Your task to perform on an android device: uninstall "ZOOM Cloud Meetings" Image 0: 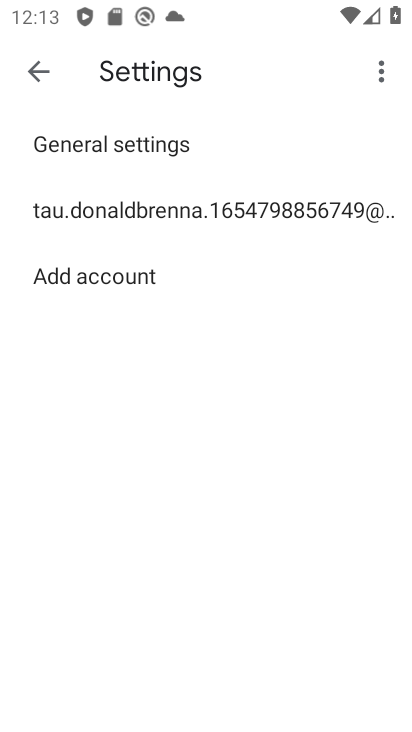
Step 0: press home button
Your task to perform on an android device: uninstall "ZOOM Cloud Meetings" Image 1: 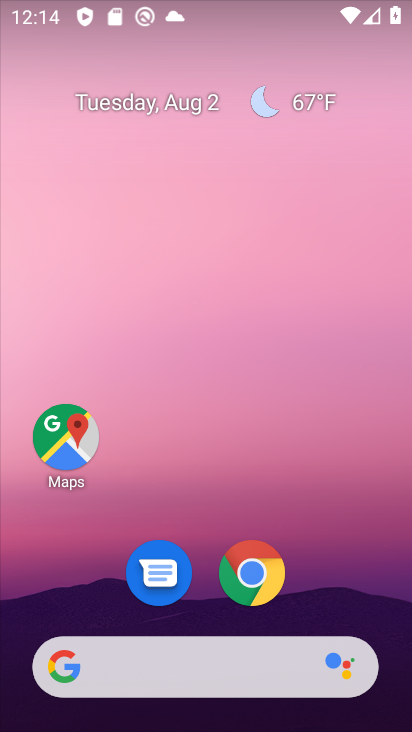
Step 1: drag from (241, 664) to (230, 9)
Your task to perform on an android device: uninstall "ZOOM Cloud Meetings" Image 2: 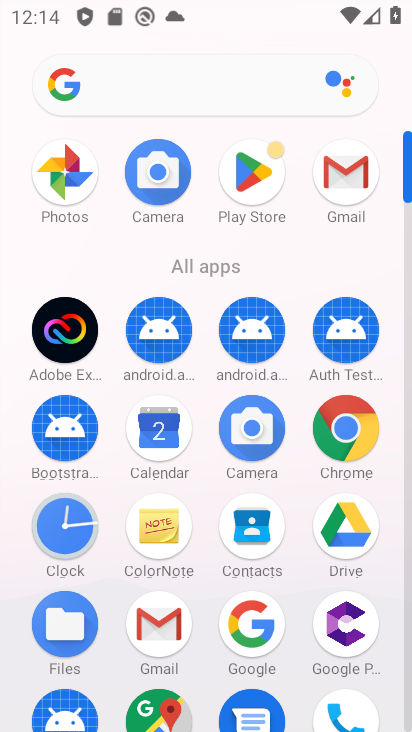
Step 2: click (246, 169)
Your task to perform on an android device: uninstall "ZOOM Cloud Meetings" Image 3: 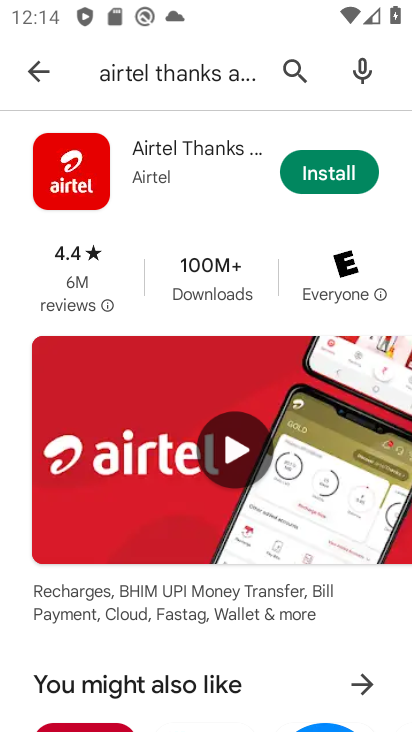
Step 3: click (293, 70)
Your task to perform on an android device: uninstall "ZOOM Cloud Meetings" Image 4: 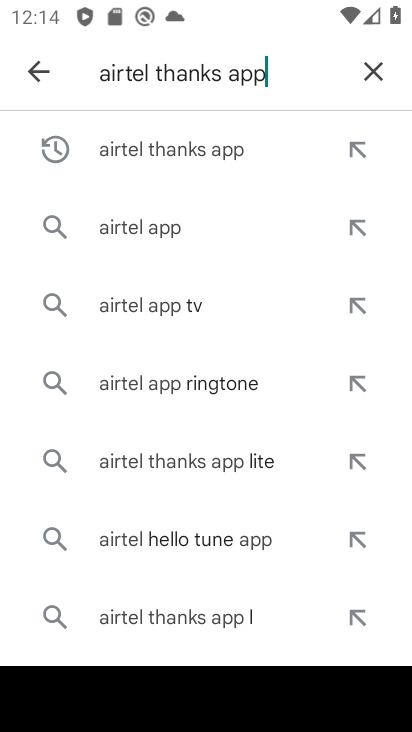
Step 4: click (376, 71)
Your task to perform on an android device: uninstall "ZOOM Cloud Meetings" Image 5: 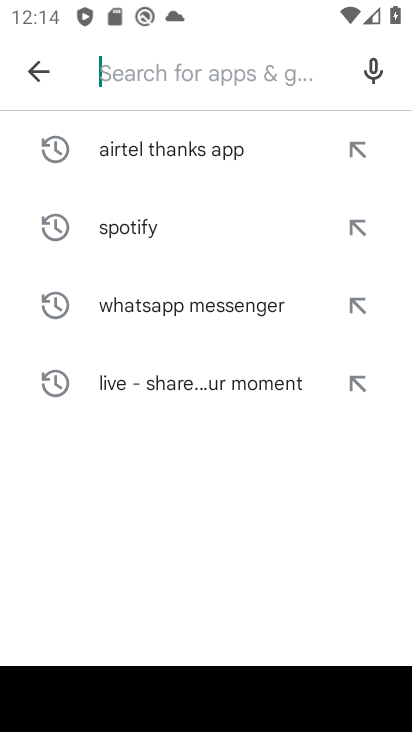
Step 5: type "zoom cloud meetings"
Your task to perform on an android device: uninstall "ZOOM Cloud Meetings" Image 6: 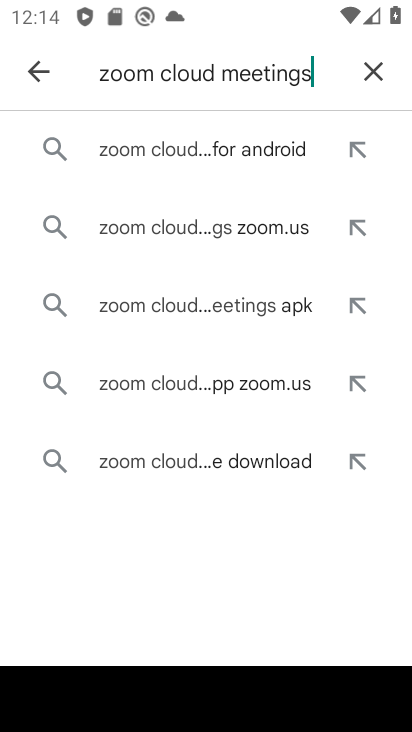
Step 6: click (243, 146)
Your task to perform on an android device: uninstall "ZOOM Cloud Meetings" Image 7: 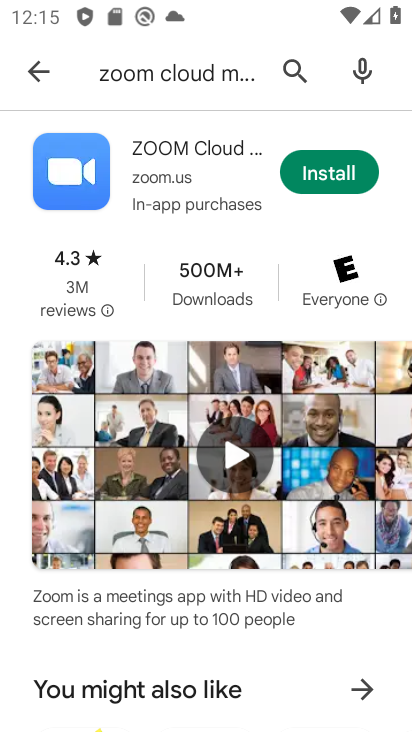
Step 7: task complete